Your task to perform on an android device: Open display settings Image 0: 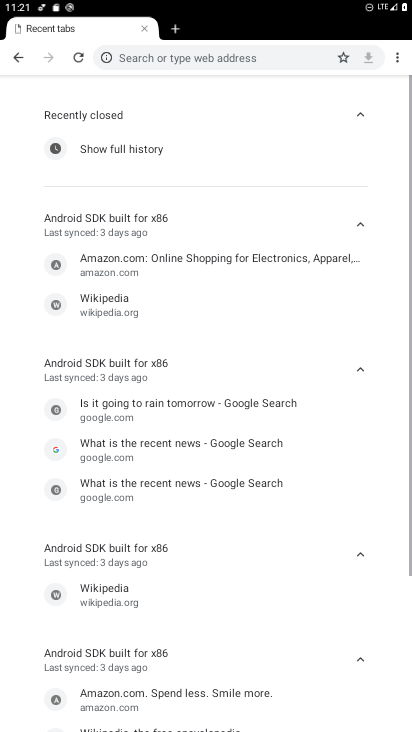
Step 0: drag from (260, 488) to (213, 167)
Your task to perform on an android device: Open display settings Image 1: 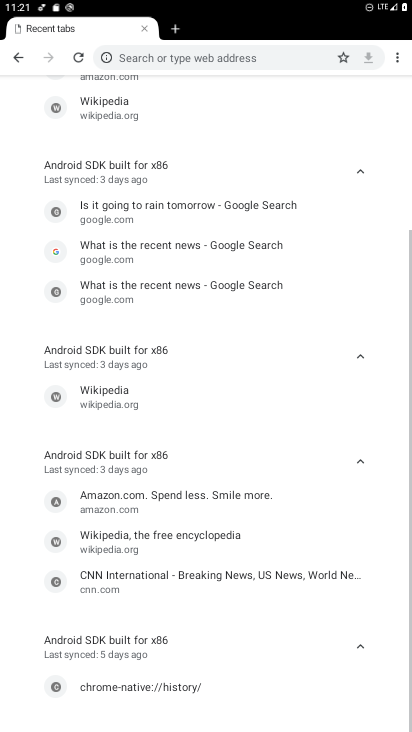
Step 1: press home button
Your task to perform on an android device: Open display settings Image 2: 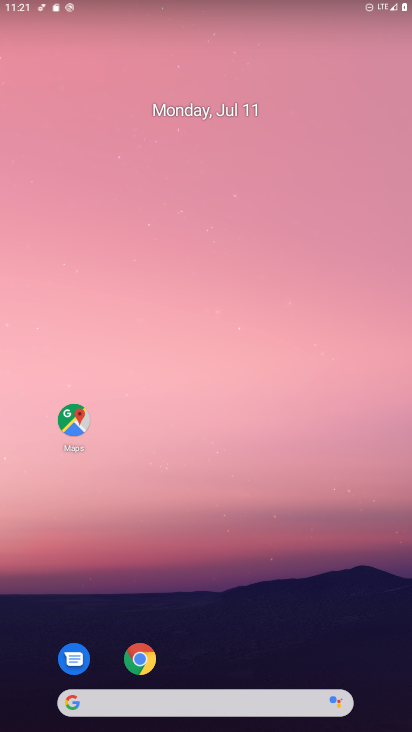
Step 2: drag from (336, 648) to (249, 128)
Your task to perform on an android device: Open display settings Image 3: 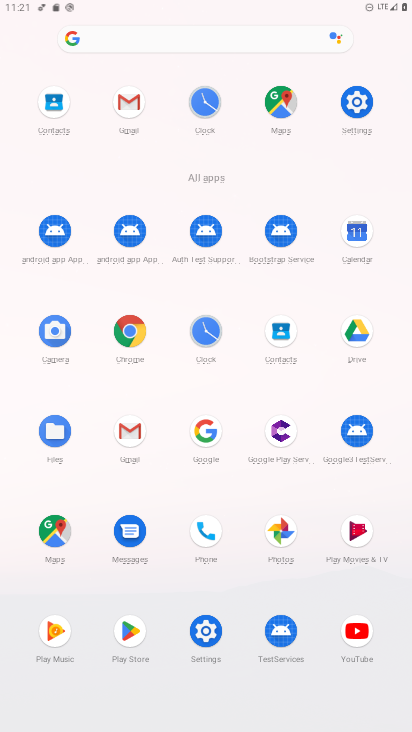
Step 3: click (352, 109)
Your task to perform on an android device: Open display settings Image 4: 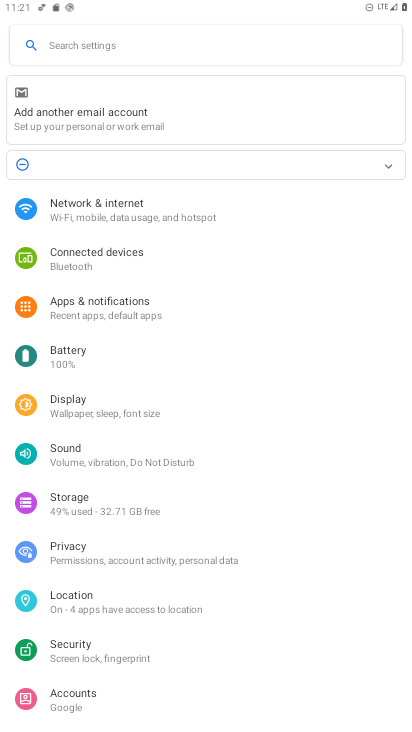
Step 4: click (170, 407)
Your task to perform on an android device: Open display settings Image 5: 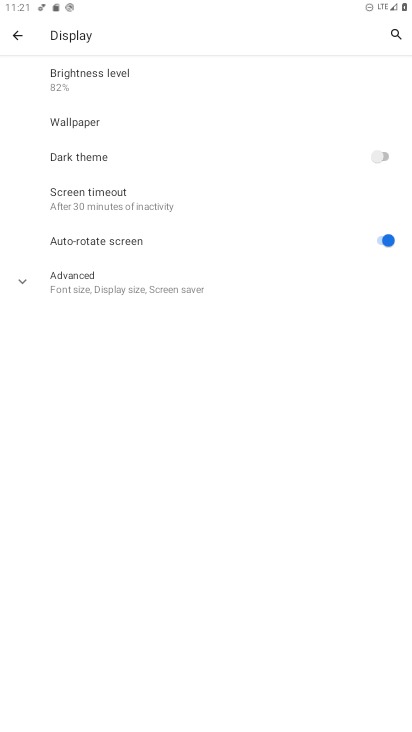
Step 5: task complete